Your task to perform on an android device: Open the stopwatch Image 0: 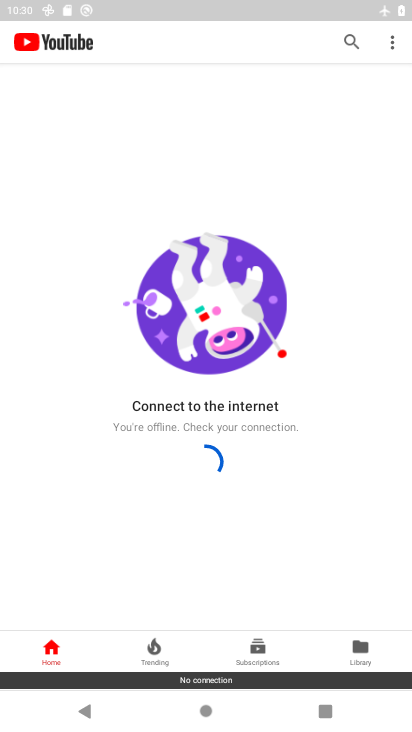
Step 0: press back button
Your task to perform on an android device: Open the stopwatch Image 1: 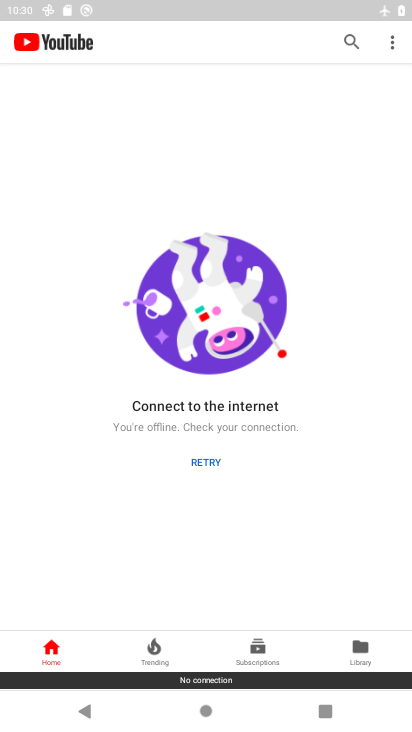
Step 1: press back button
Your task to perform on an android device: Open the stopwatch Image 2: 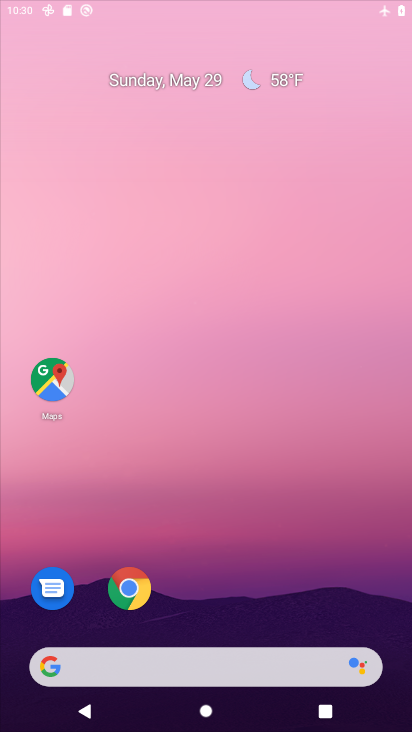
Step 2: press back button
Your task to perform on an android device: Open the stopwatch Image 3: 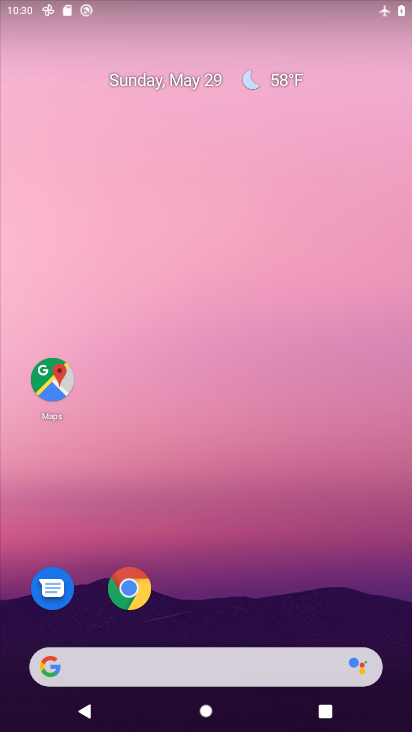
Step 3: drag from (268, 664) to (153, 108)
Your task to perform on an android device: Open the stopwatch Image 4: 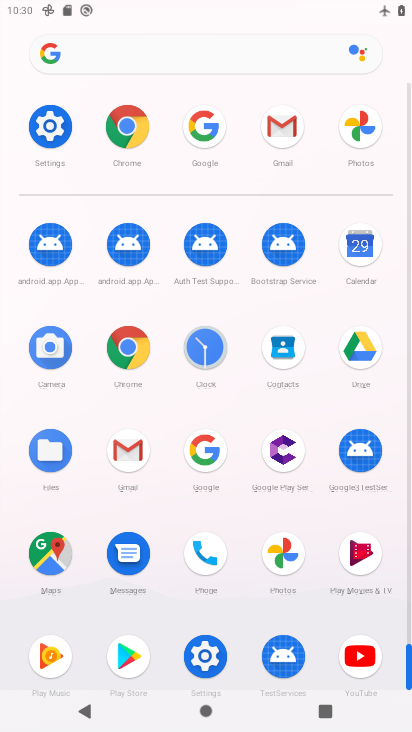
Step 4: click (209, 342)
Your task to perform on an android device: Open the stopwatch Image 5: 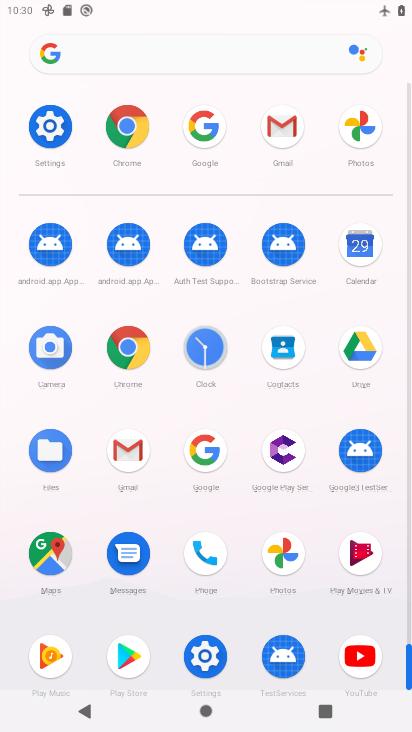
Step 5: click (209, 342)
Your task to perform on an android device: Open the stopwatch Image 6: 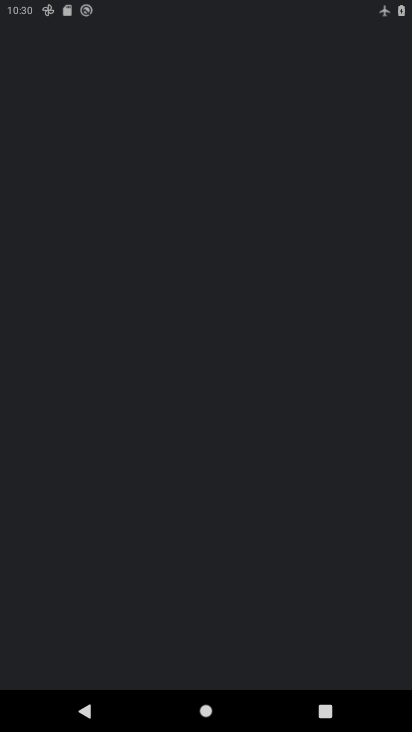
Step 6: click (209, 342)
Your task to perform on an android device: Open the stopwatch Image 7: 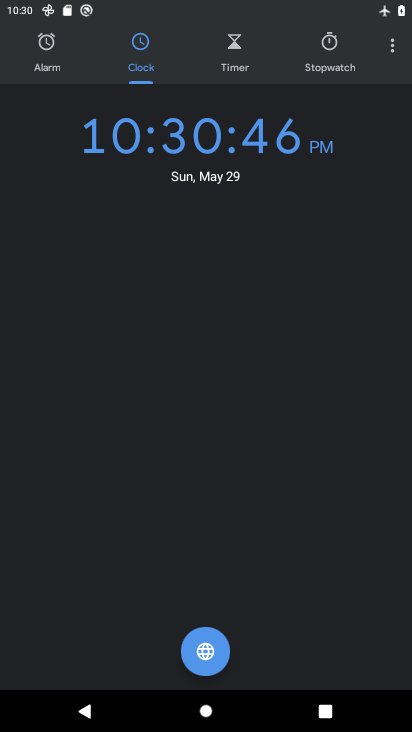
Step 7: click (209, 342)
Your task to perform on an android device: Open the stopwatch Image 8: 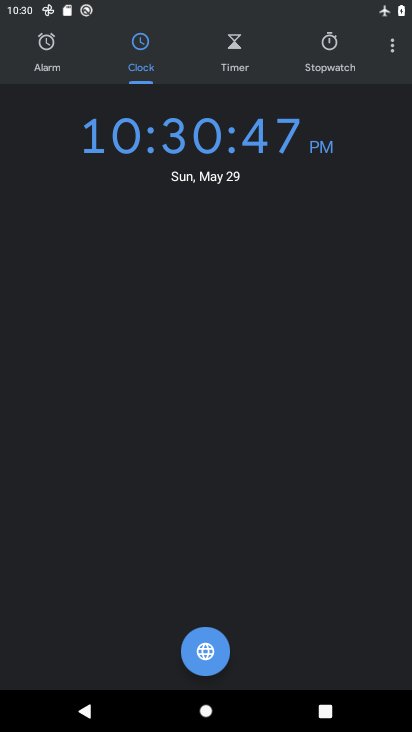
Step 8: click (210, 341)
Your task to perform on an android device: Open the stopwatch Image 9: 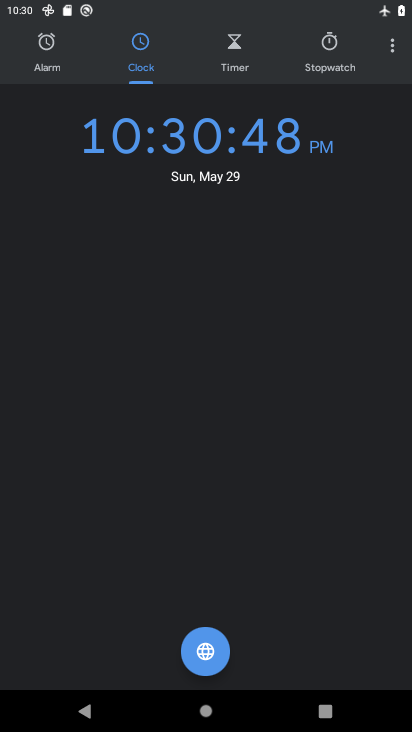
Step 9: click (327, 65)
Your task to perform on an android device: Open the stopwatch Image 10: 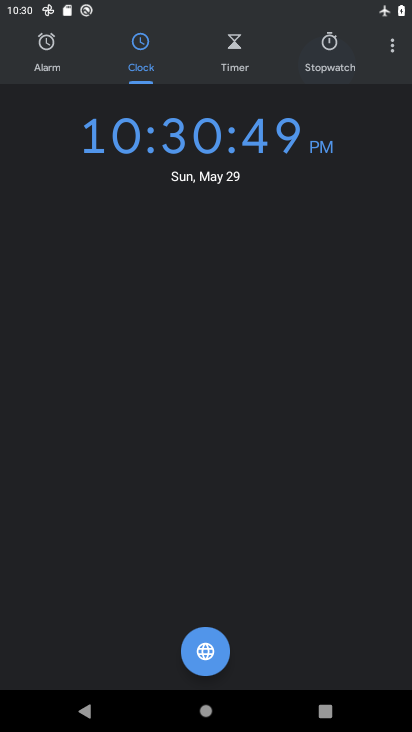
Step 10: click (328, 65)
Your task to perform on an android device: Open the stopwatch Image 11: 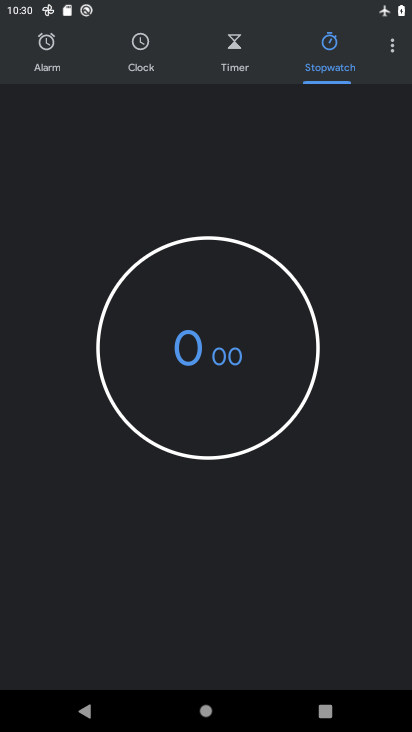
Step 11: click (329, 67)
Your task to perform on an android device: Open the stopwatch Image 12: 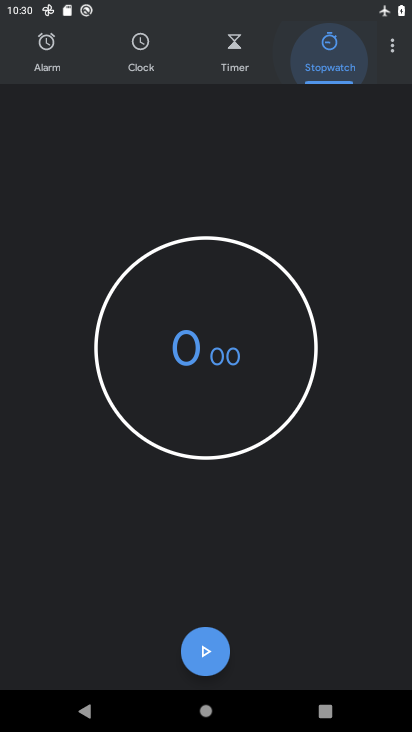
Step 12: click (329, 69)
Your task to perform on an android device: Open the stopwatch Image 13: 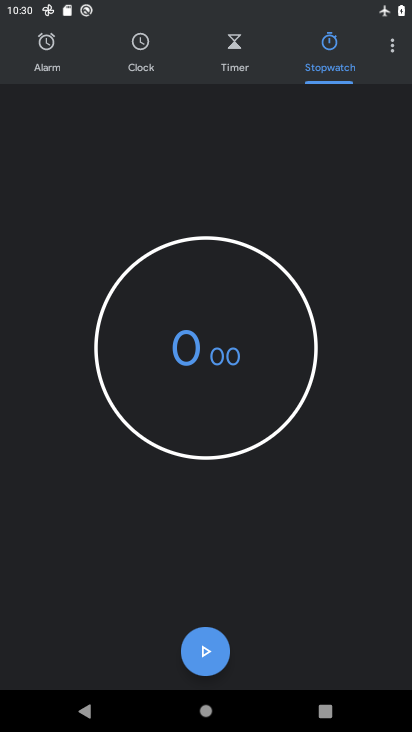
Step 13: task complete